Your task to perform on an android device: turn pop-ups off in chrome Image 0: 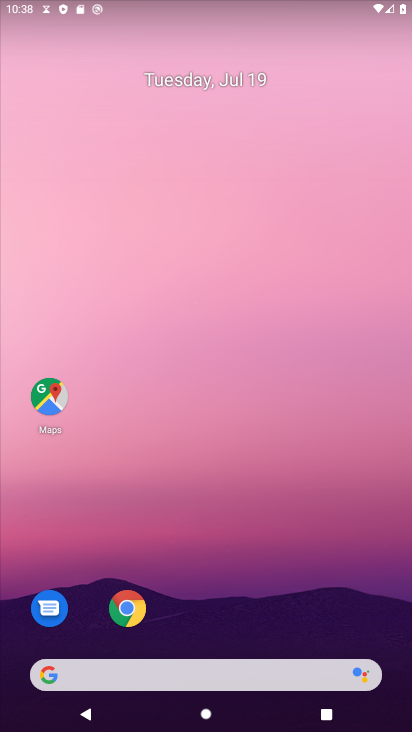
Step 0: click (124, 612)
Your task to perform on an android device: turn pop-ups off in chrome Image 1: 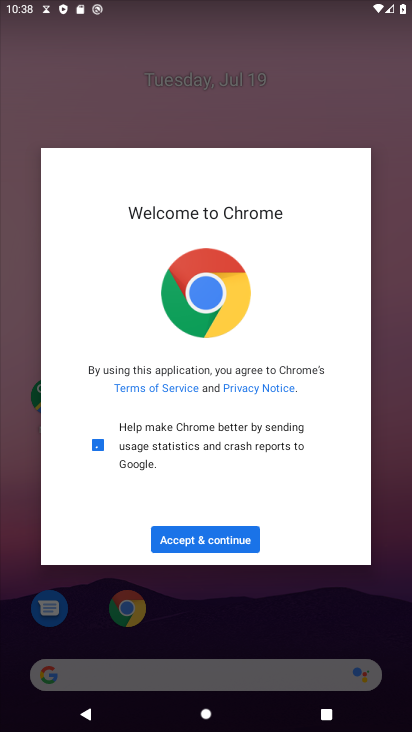
Step 1: click (124, 612)
Your task to perform on an android device: turn pop-ups off in chrome Image 2: 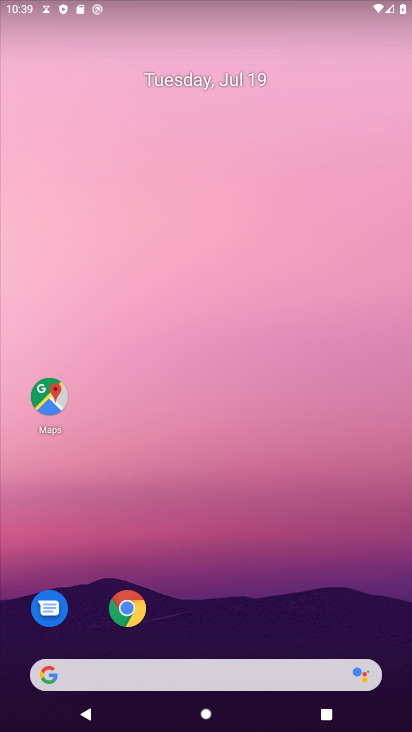
Step 2: click (130, 596)
Your task to perform on an android device: turn pop-ups off in chrome Image 3: 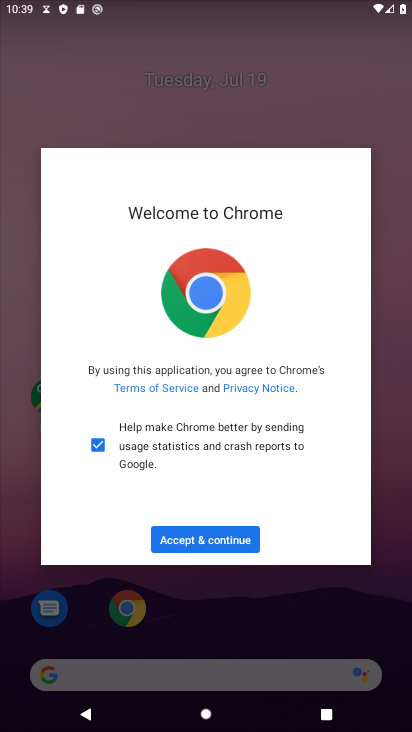
Step 3: click (201, 534)
Your task to perform on an android device: turn pop-ups off in chrome Image 4: 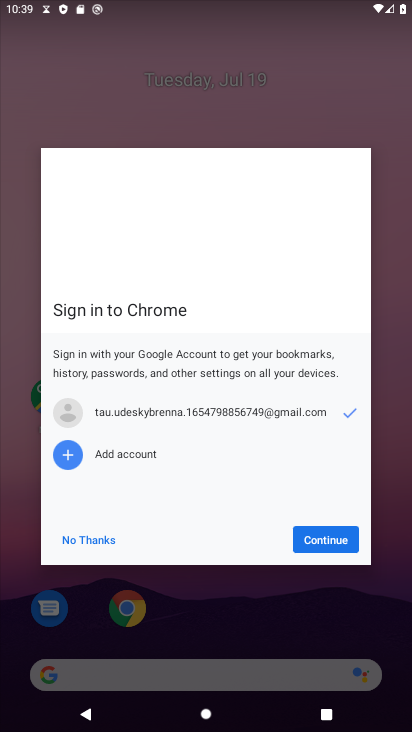
Step 4: click (324, 529)
Your task to perform on an android device: turn pop-ups off in chrome Image 5: 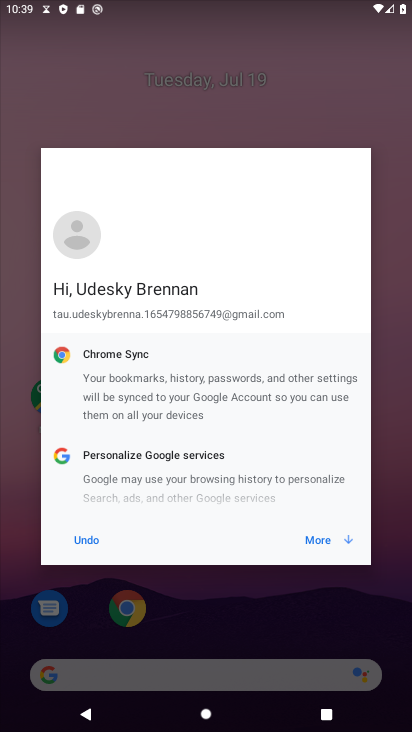
Step 5: click (324, 529)
Your task to perform on an android device: turn pop-ups off in chrome Image 6: 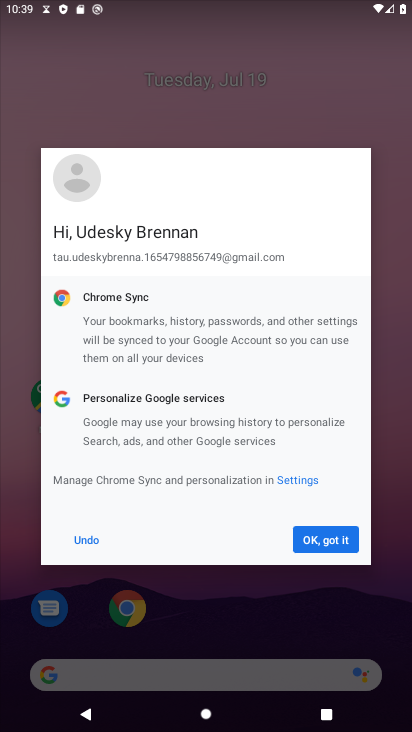
Step 6: click (324, 529)
Your task to perform on an android device: turn pop-ups off in chrome Image 7: 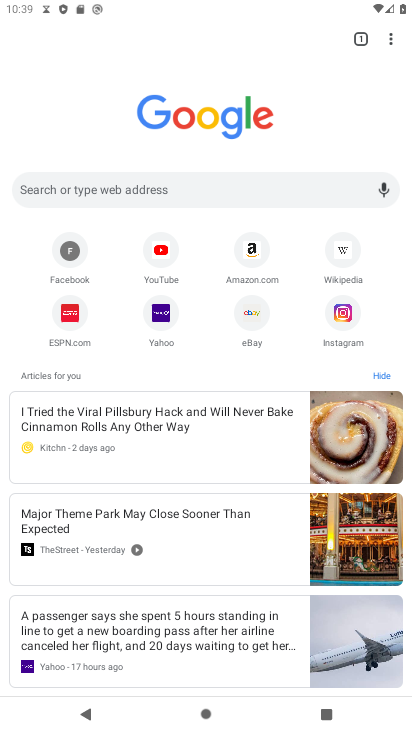
Step 7: click (388, 44)
Your task to perform on an android device: turn pop-ups off in chrome Image 8: 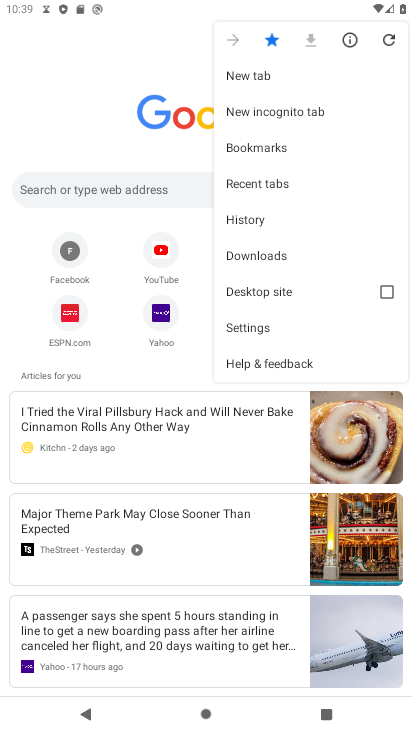
Step 8: click (254, 334)
Your task to perform on an android device: turn pop-ups off in chrome Image 9: 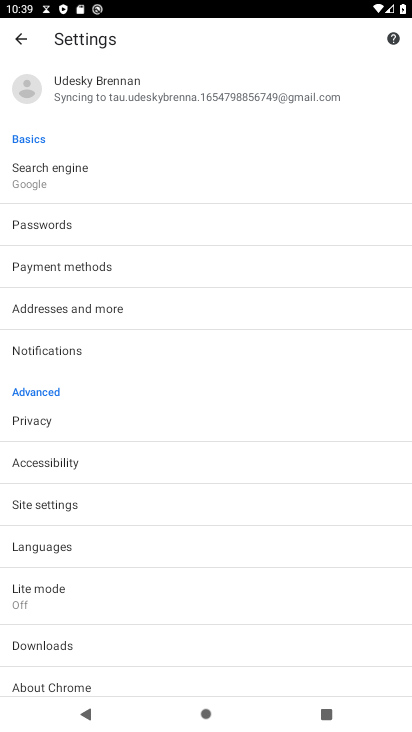
Step 9: click (143, 507)
Your task to perform on an android device: turn pop-ups off in chrome Image 10: 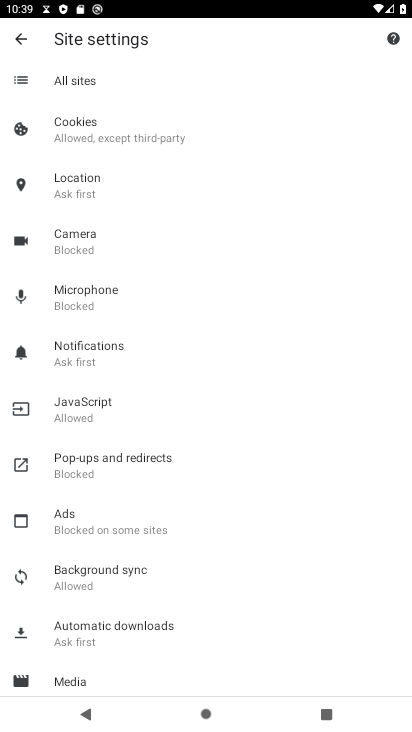
Step 10: click (92, 457)
Your task to perform on an android device: turn pop-ups off in chrome Image 11: 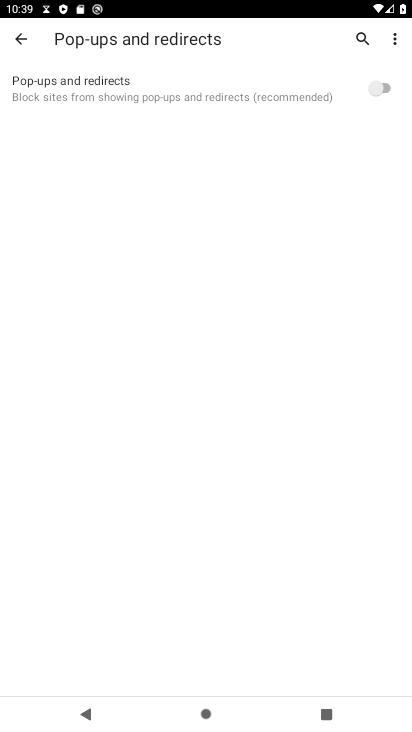
Step 11: task complete